Your task to perform on an android device: Clear the cart on newegg. Search for logitech g pro on newegg, select the first entry, and add it to the cart. Image 0: 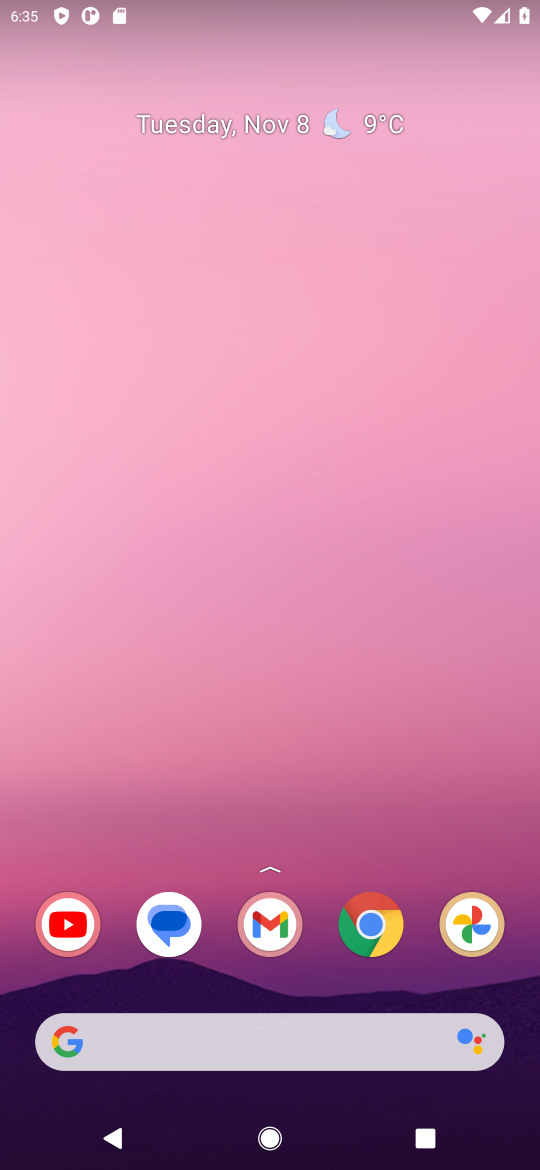
Step 0: click (213, 1037)
Your task to perform on an android device: Clear the cart on newegg. Search for logitech g pro on newegg, select the first entry, and add it to the cart. Image 1: 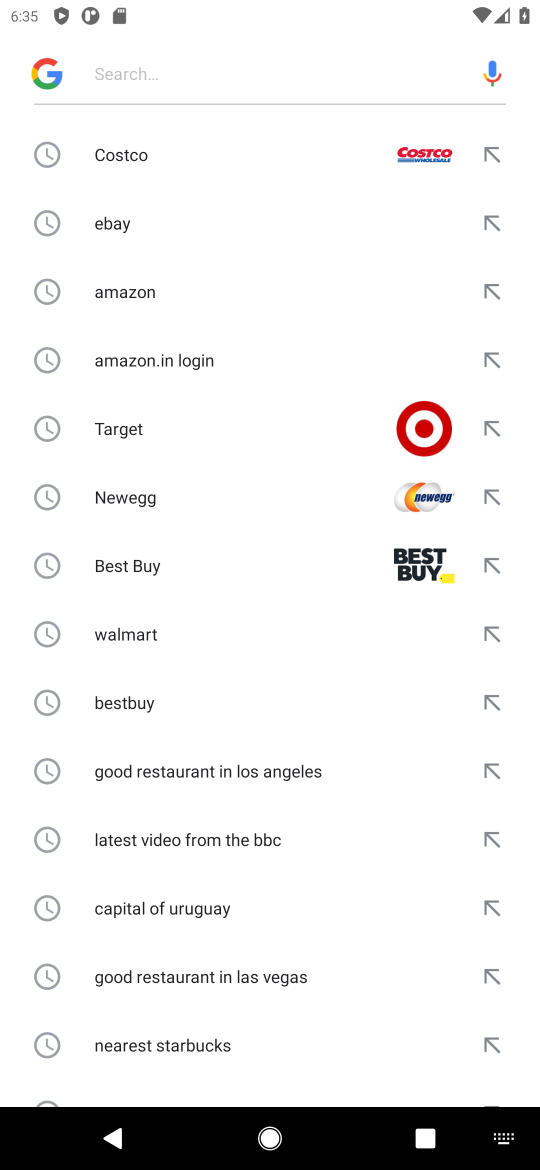
Step 1: click (112, 493)
Your task to perform on an android device: Clear the cart on newegg. Search for logitech g pro on newegg, select the first entry, and add it to the cart. Image 2: 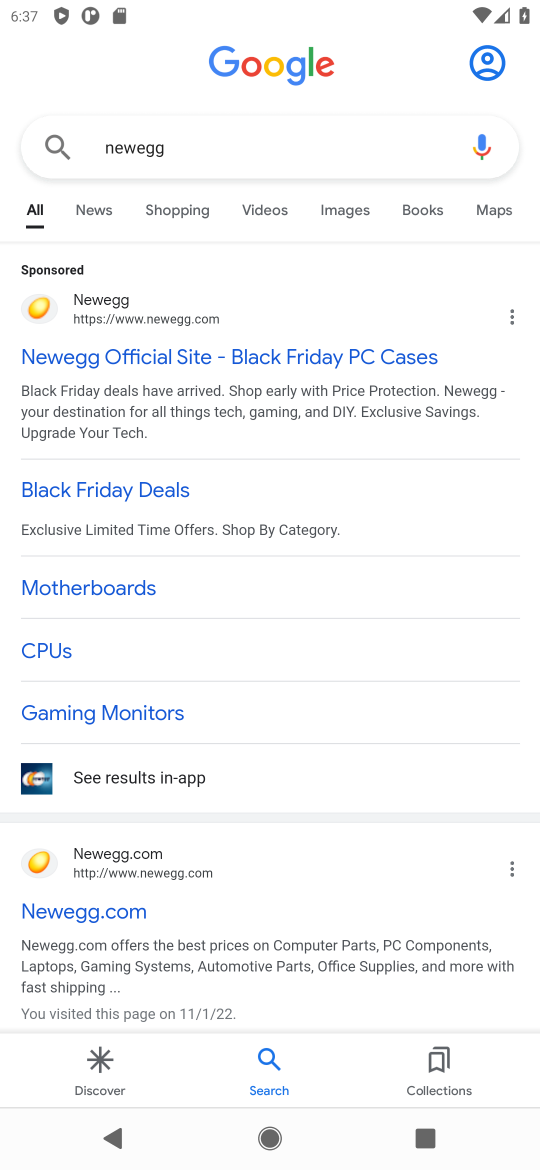
Step 2: click (120, 357)
Your task to perform on an android device: Clear the cart on newegg. Search for logitech g pro on newegg, select the first entry, and add it to the cart. Image 3: 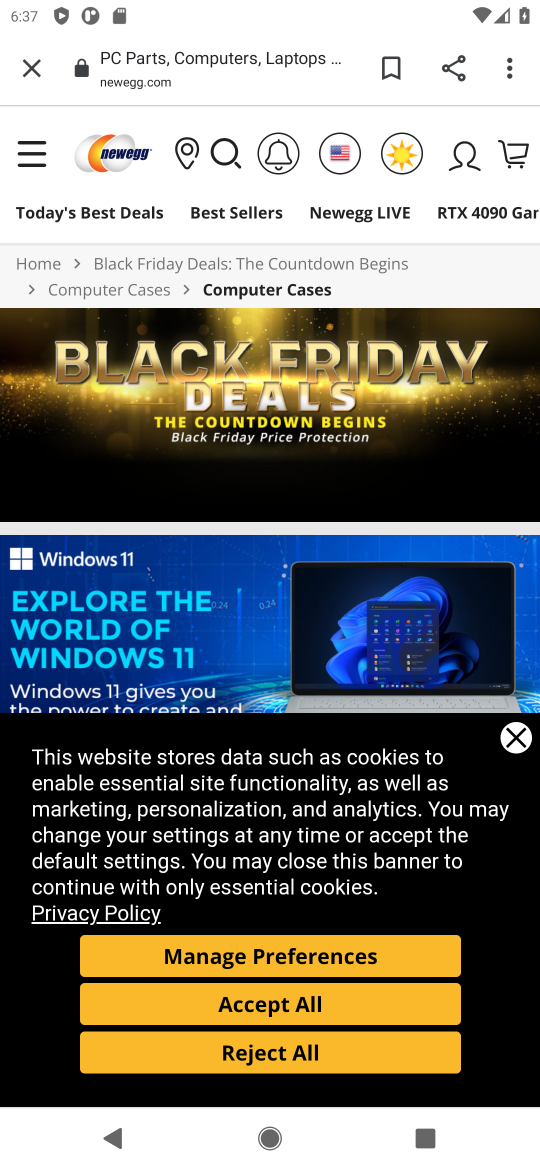
Step 3: click (236, 158)
Your task to perform on an android device: Clear the cart on newegg. Search for logitech g pro on newegg, select the first entry, and add it to the cart. Image 4: 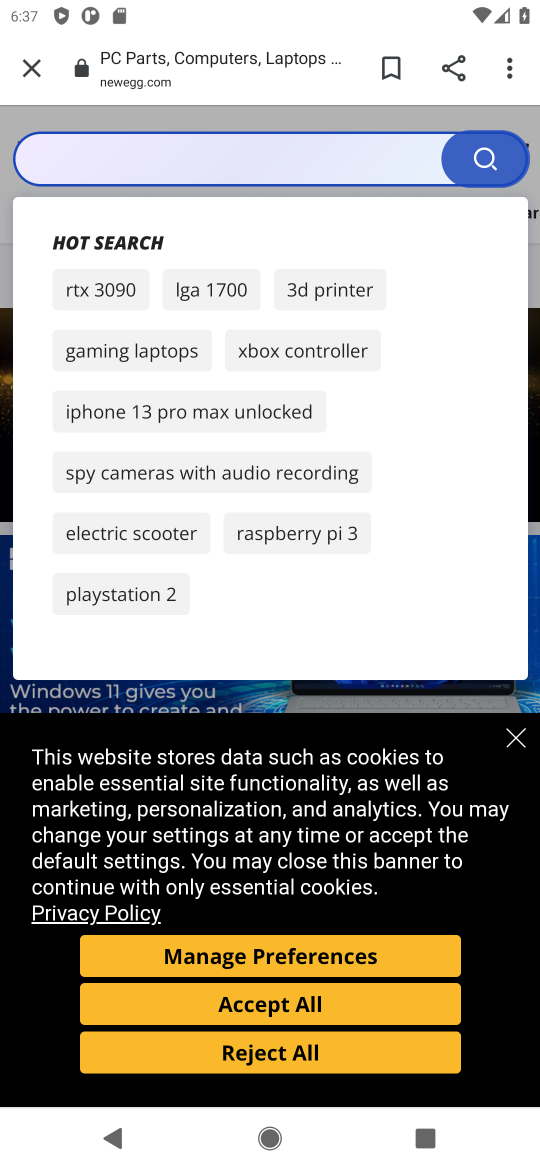
Step 4: type " logitech g pro"
Your task to perform on an android device: Clear the cart on newegg. Search for logitech g pro on newegg, select the first entry, and add it to the cart. Image 5: 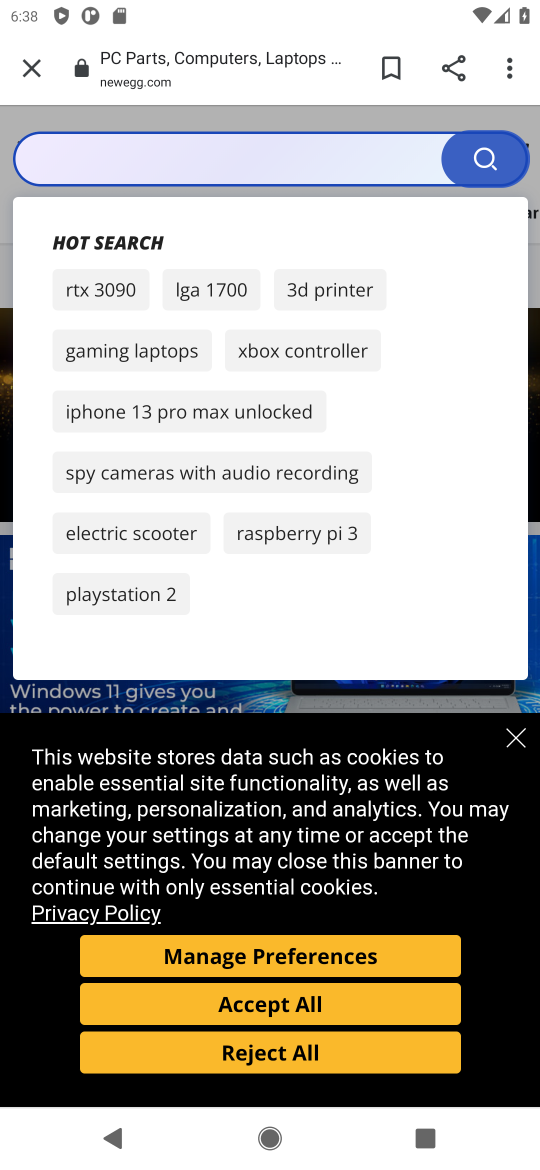
Step 5: type " logitech g pro"
Your task to perform on an android device: Clear the cart on newegg. Search for logitech g pro on newegg, select the first entry, and add it to the cart. Image 6: 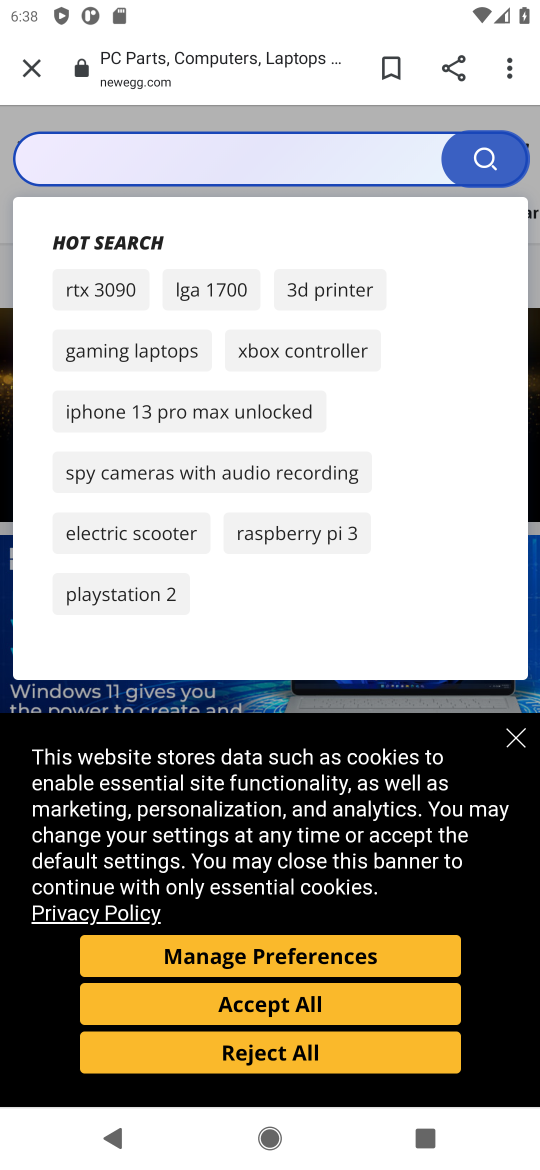
Step 6: click (514, 743)
Your task to perform on an android device: Clear the cart on newegg. Search for logitech g pro on newegg, select the first entry, and add it to the cart. Image 7: 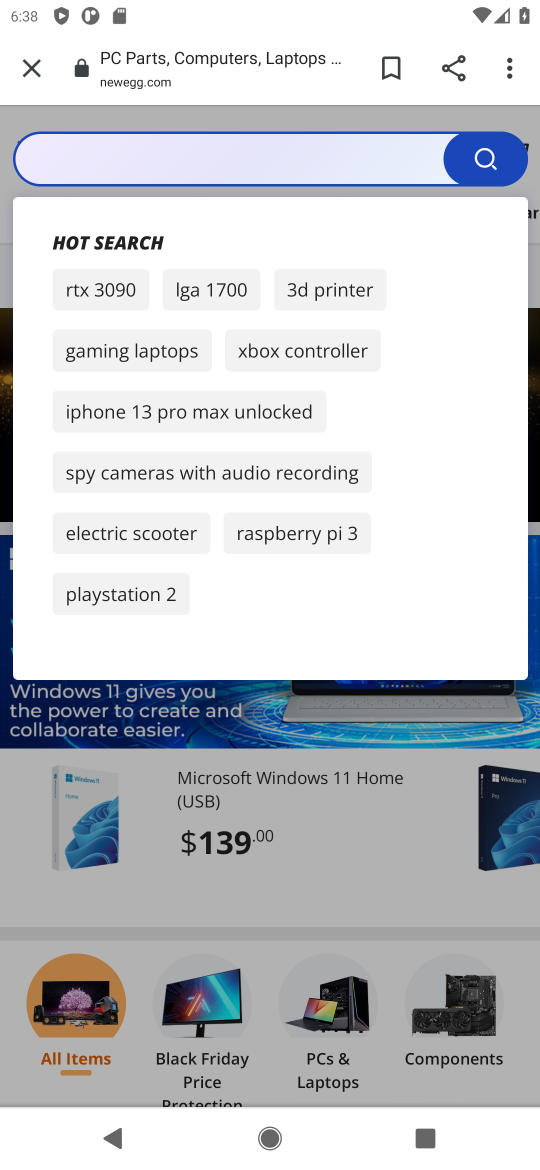
Step 7: click (514, 743)
Your task to perform on an android device: Clear the cart on newegg. Search for logitech g pro on newegg, select the first entry, and add it to the cart. Image 8: 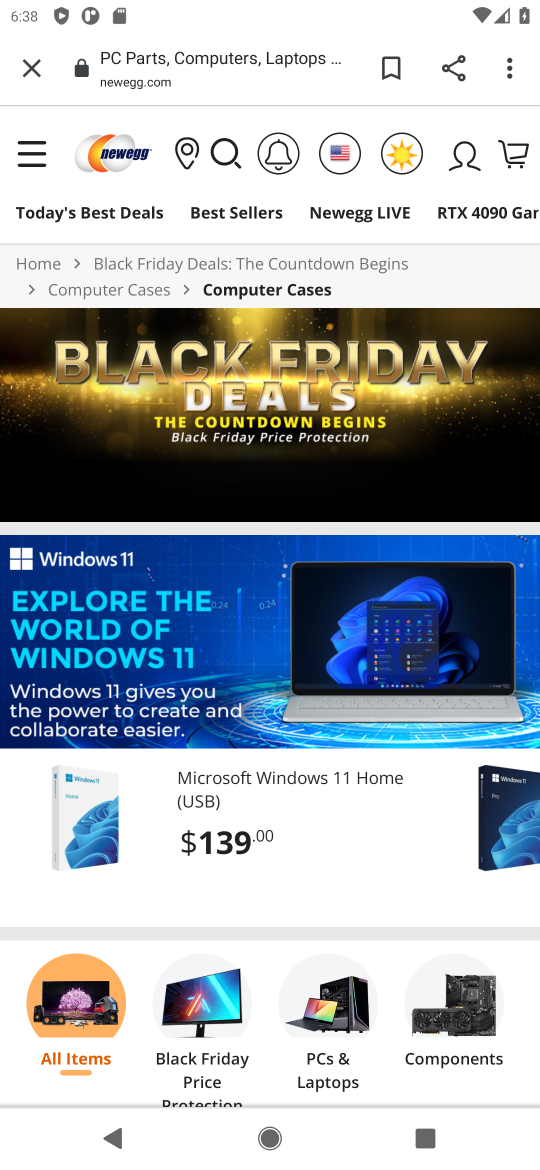
Step 8: click (227, 150)
Your task to perform on an android device: Clear the cart on newegg. Search for logitech g pro on newegg, select the first entry, and add it to the cart. Image 9: 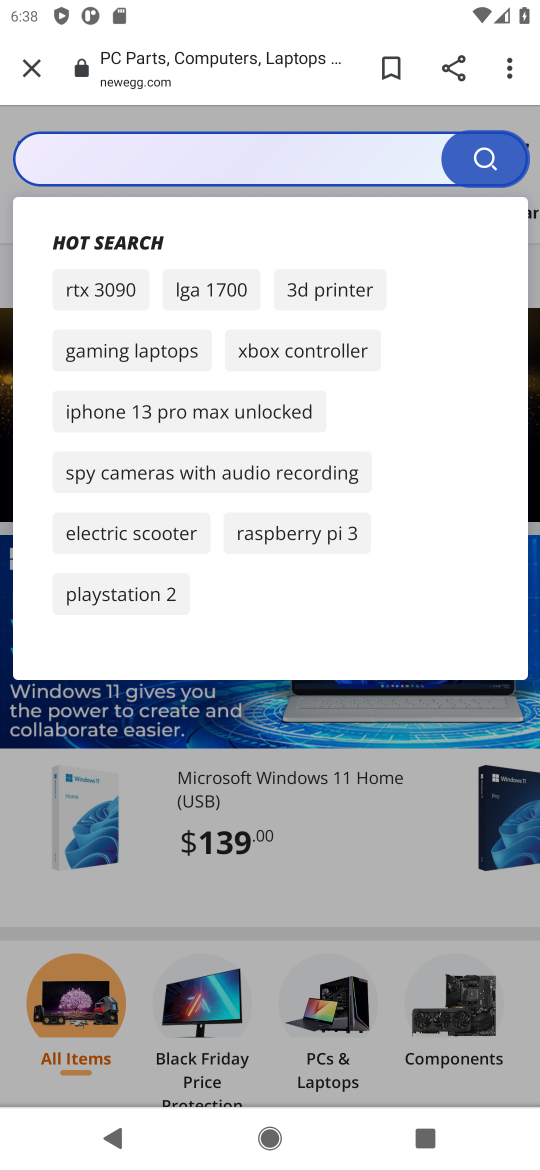
Step 9: click (243, 170)
Your task to perform on an android device: Clear the cart on newegg. Search for logitech g pro on newegg, select the first entry, and add it to the cart. Image 10: 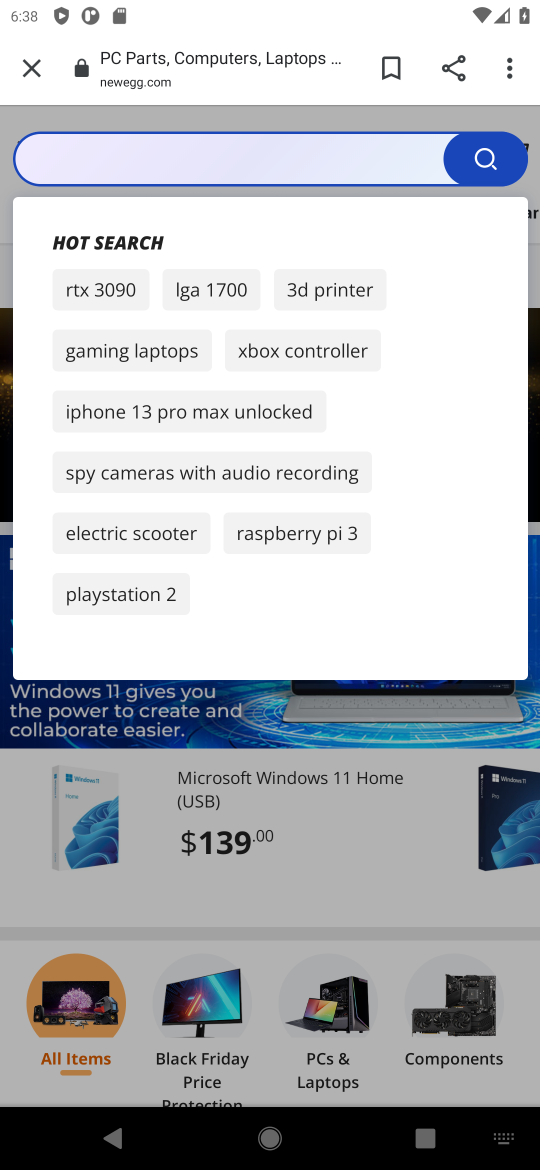
Step 10: click (386, 168)
Your task to perform on an android device: Clear the cart on newegg. Search for logitech g pro on newegg, select the first entry, and add it to the cart. Image 11: 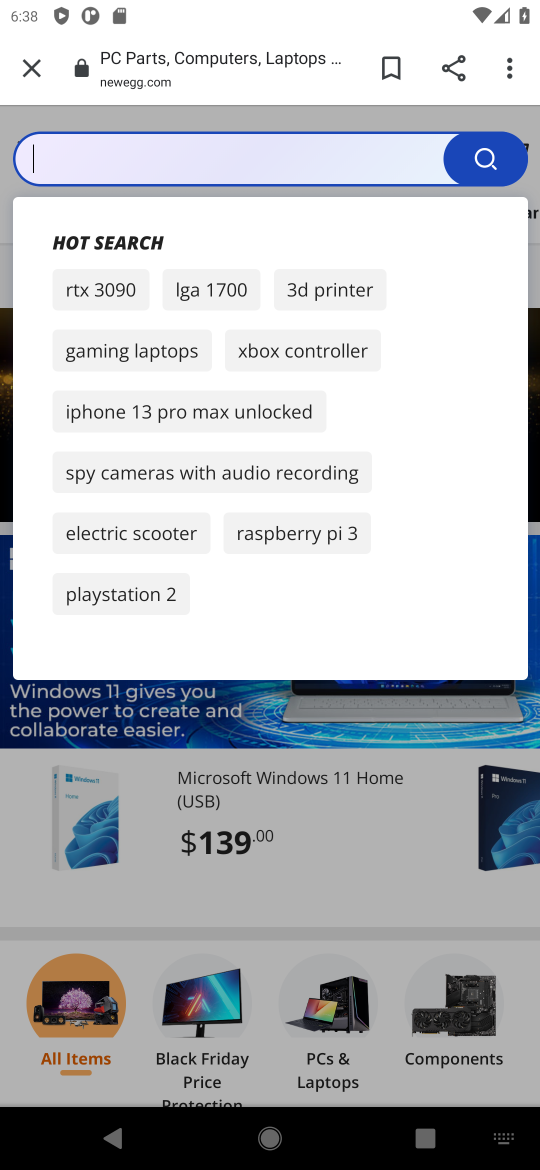
Step 11: click (311, 163)
Your task to perform on an android device: Clear the cart on newegg. Search for logitech g pro on newegg, select the first entry, and add it to the cart. Image 12: 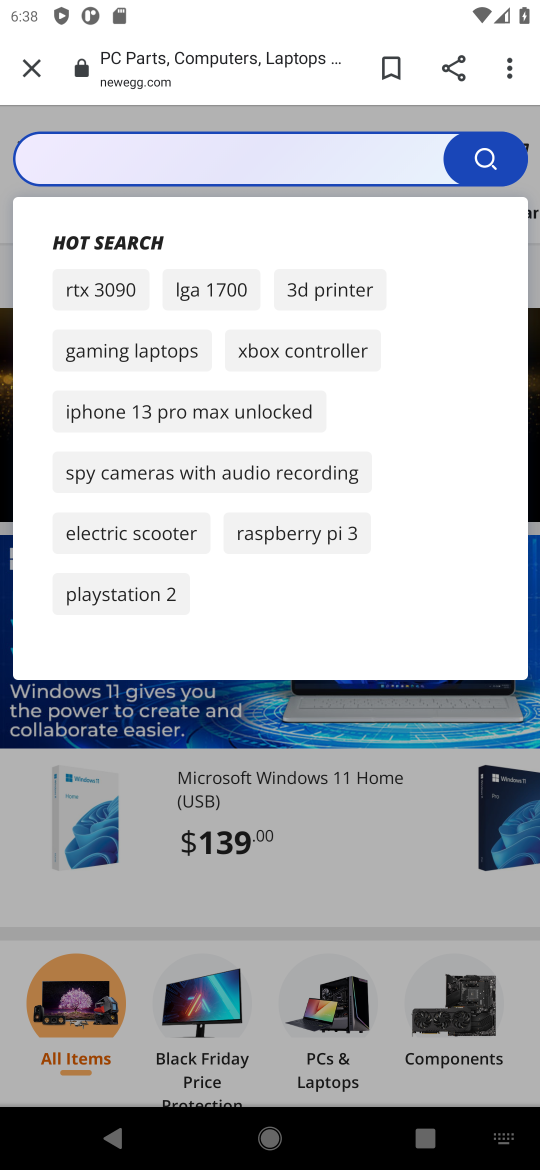
Step 12: type "logitech g pro"
Your task to perform on an android device: Clear the cart on newegg. Search for logitech g pro on newegg, select the first entry, and add it to the cart. Image 13: 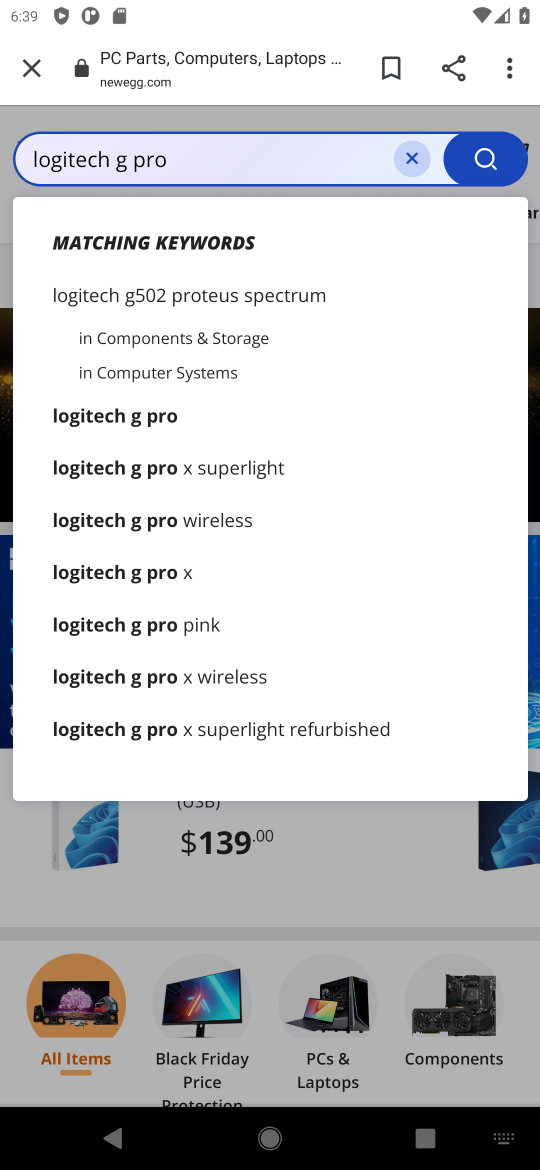
Step 13: click (462, 165)
Your task to perform on an android device: Clear the cart on newegg. Search for logitech g pro on newegg, select the first entry, and add it to the cart. Image 14: 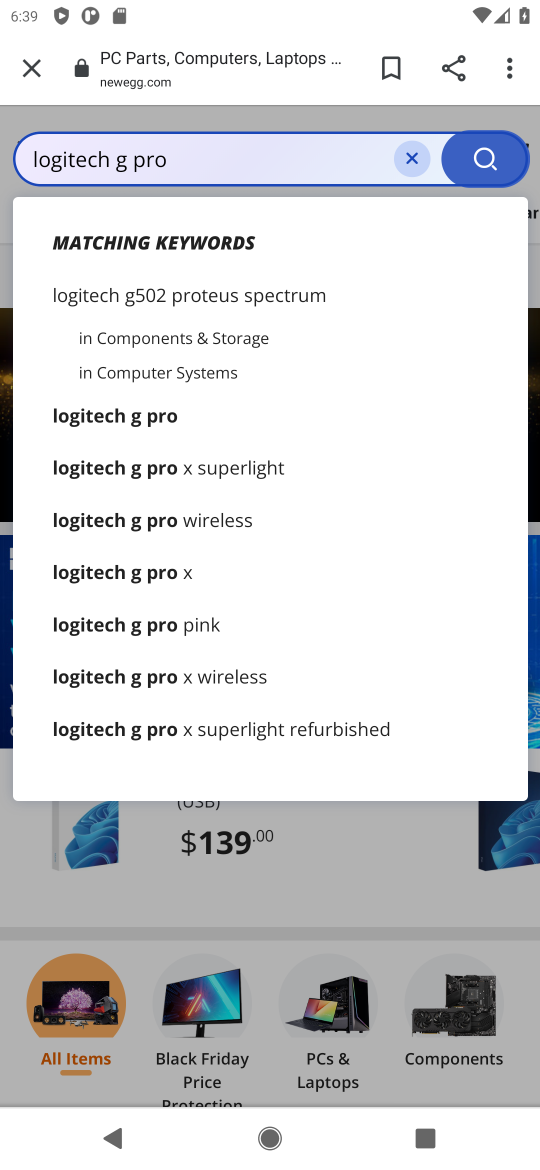
Step 14: click (474, 165)
Your task to perform on an android device: Clear the cart on newegg. Search for logitech g pro on newegg, select the first entry, and add it to the cart. Image 15: 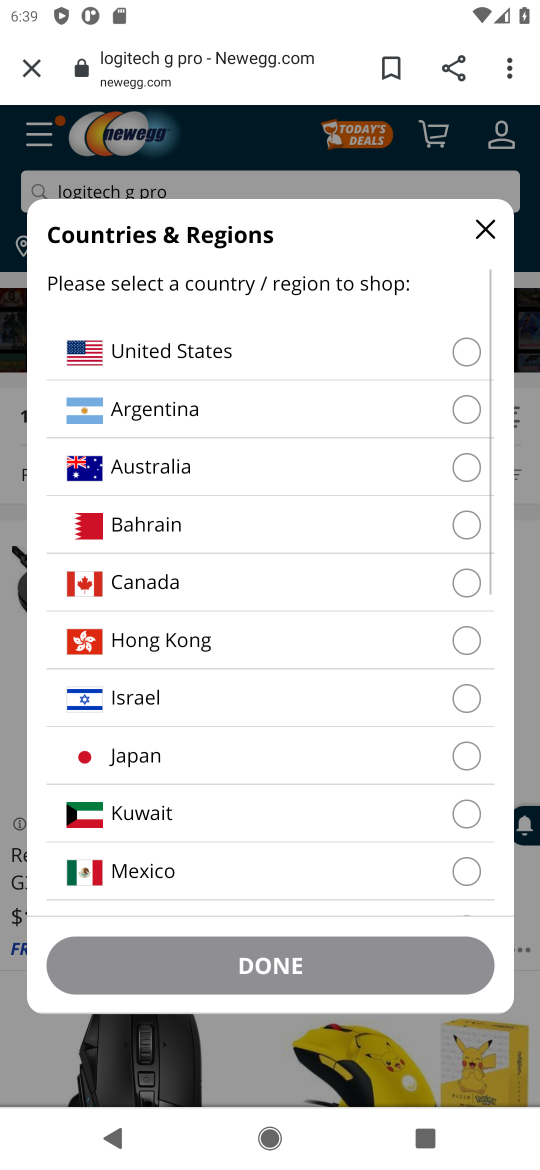
Step 15: click (466, 346)
Your task to perform on an android device: Clear the cart on newegg. Search for logitech g pro on newegg, select the first entry, and add it to the cart. Image 16: 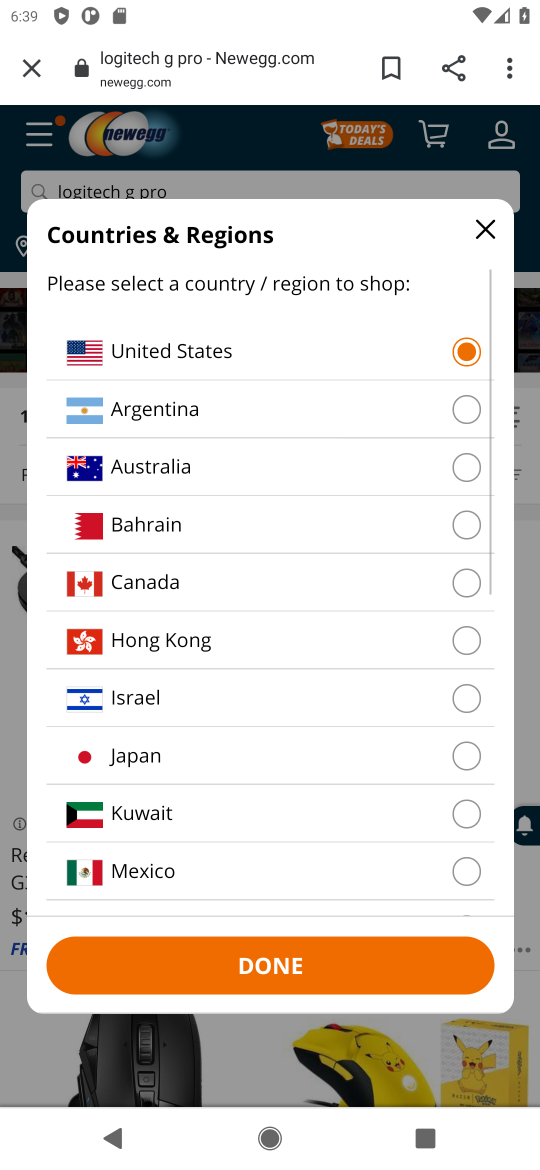
Step 16: click (268, 960)
Your task to perform on an android device: Clear the cart on newegg. Search for logitech g pro on newegg, select the first entry, and add it to the cart. Image 17: 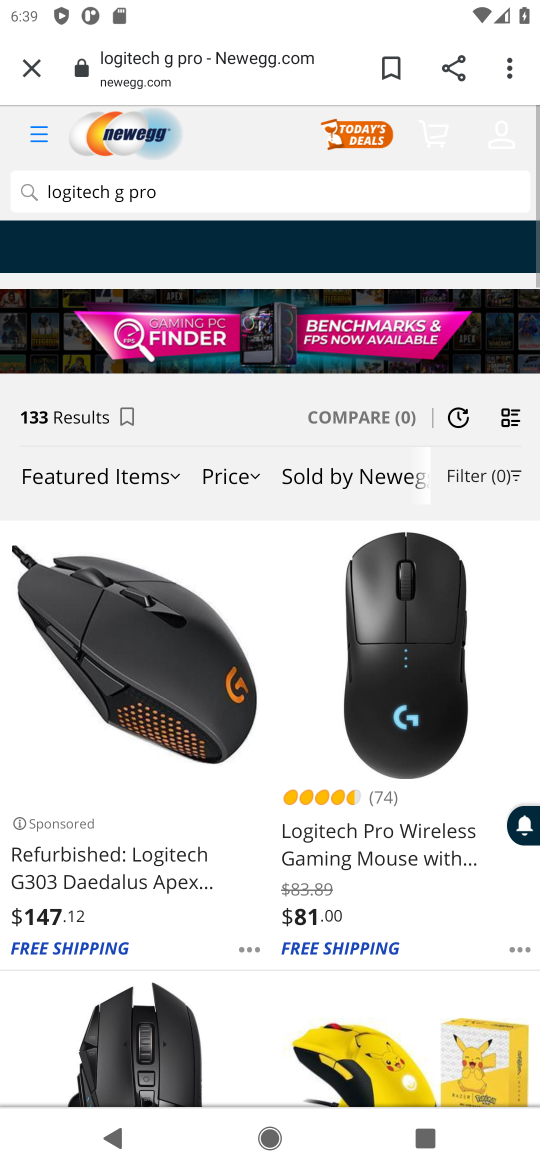
Step 17: click (167, 702)
Your task to perform on an android device: Clear the cart on newegg. Search for logitech g pro on newegg, select the first entry, and add it to the cart. Image 18: 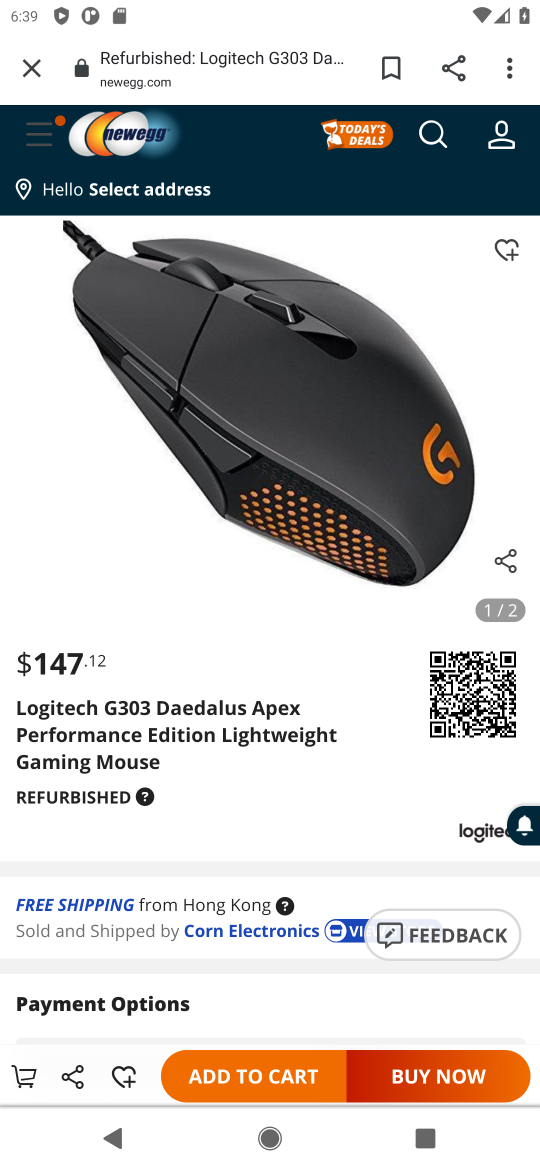
Step 18: click (235, 1064)
Your task to perform on an android device: Clear the cart on newegg. Search for logitech g pro on newegg, select the first entry, and add it to the cart. Image 19: 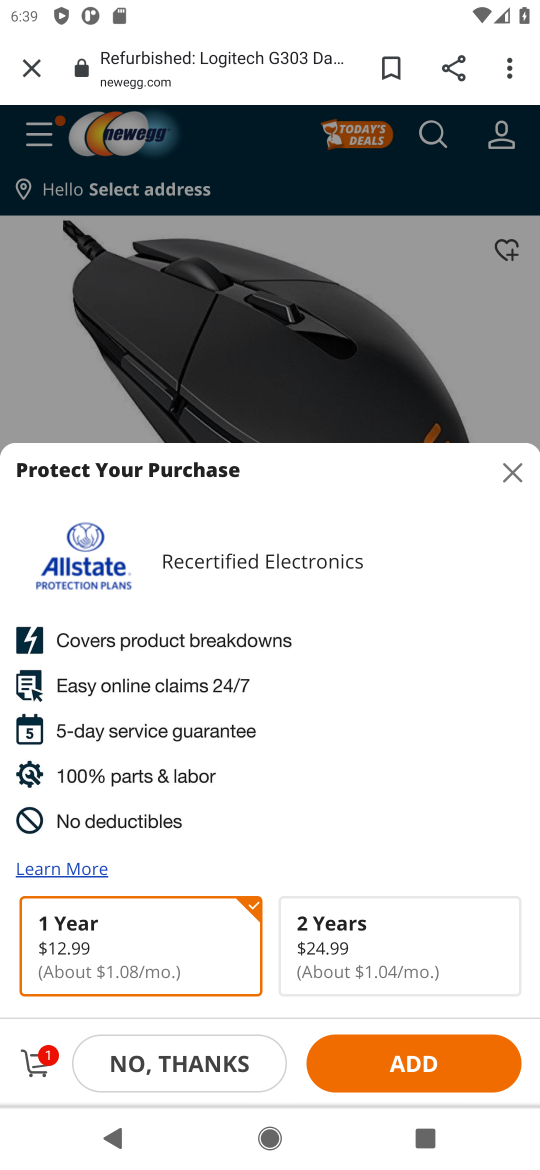
Step 19: click (518, 475)
Your task to perform on an android device: Clear the cart on newegg. Search for logitech g pro on newegg, select the first entry, and add it to the cart. Image 20: 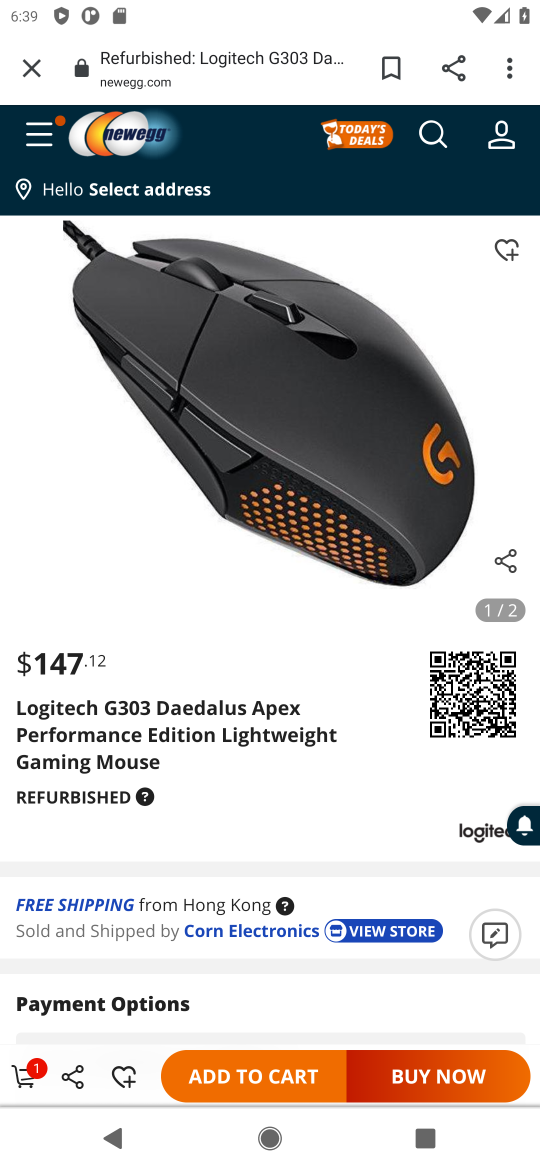
Step 20: click (36, 1070)
Your task to perform on an android device: Clear the cart on newegg. Search for logitech g pro on newegg, select the first entry, and add it to the cart. Image 21: 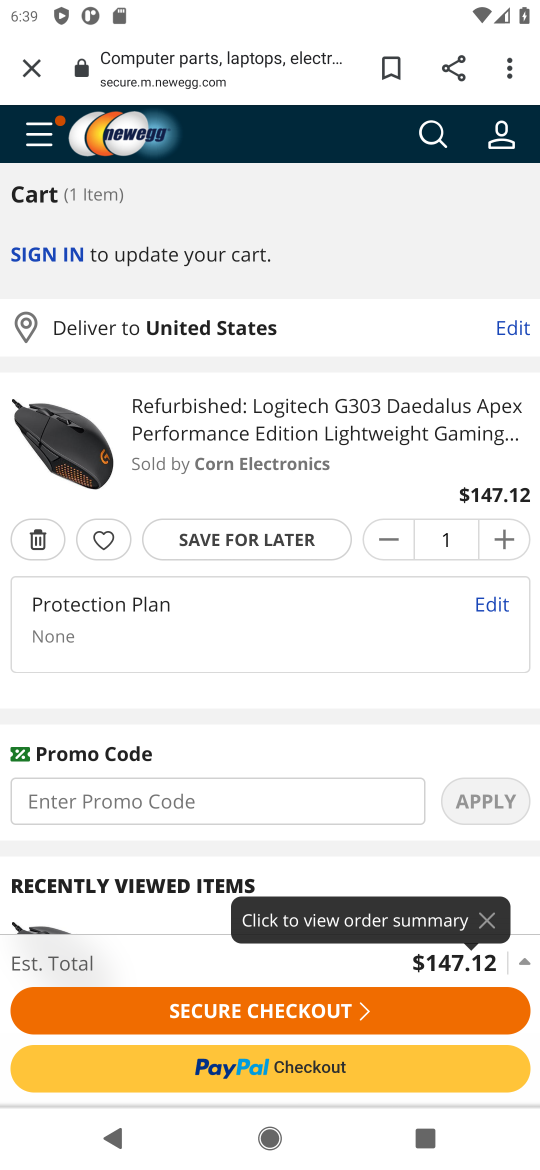
Step 21: task complete